Your task to perform on an android device: turn smart compose on in the gmail app Image 0: 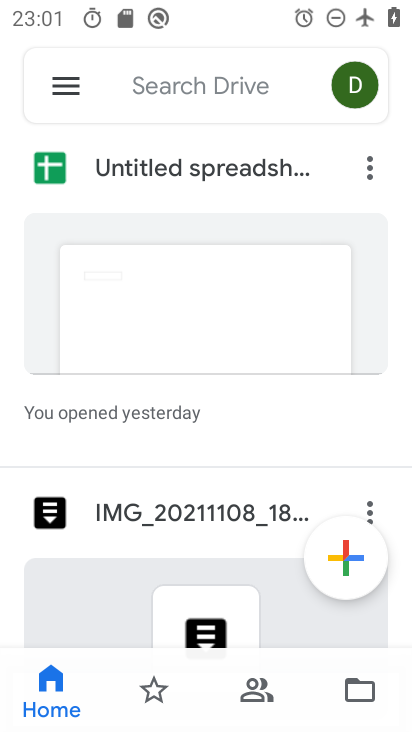
Step 0: press home button
Your task to perform on an android device: turn smart compose on in the gmail app Image 1: 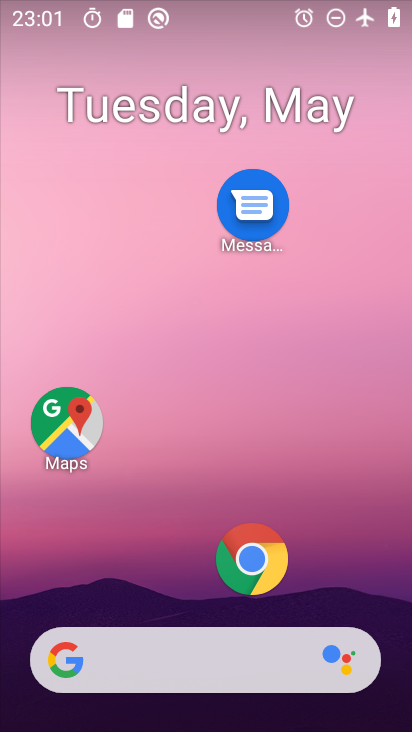
Step 1: drag from (182, 576) to (182, 132)
Your task to perform on an android device: turn smart compose on in the gmail app Image 2: 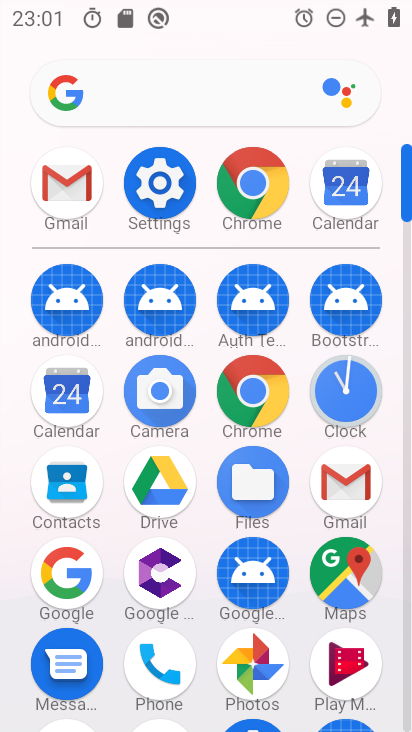
Step 2: click (38, 221)
Your task to perform on an android device: turn smart compose on in the gmail app Image 3: 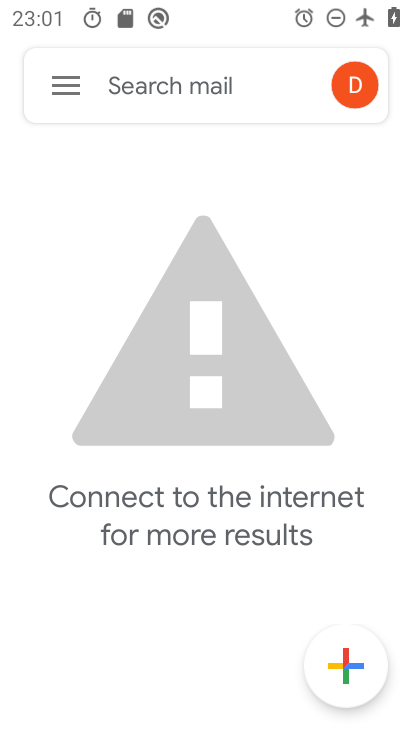
Step 3: click (63, 87)
Your task to perform on an android device: turn smart compose on in the gmail app Image 4: 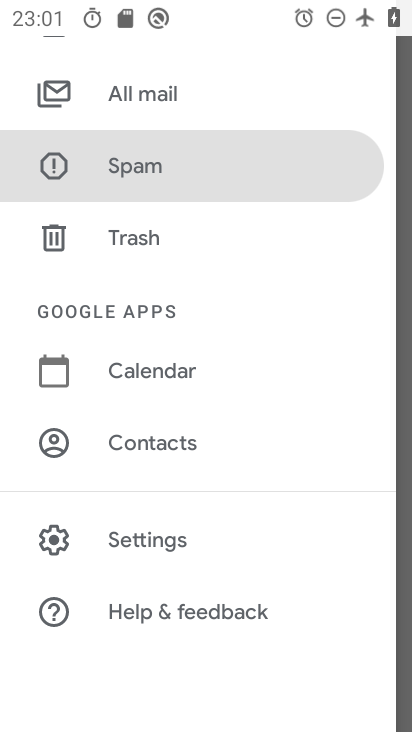
Step 4: click (160, 531)
Your task to perform on an android device: turn smart compose on in the gmail app Image 5: 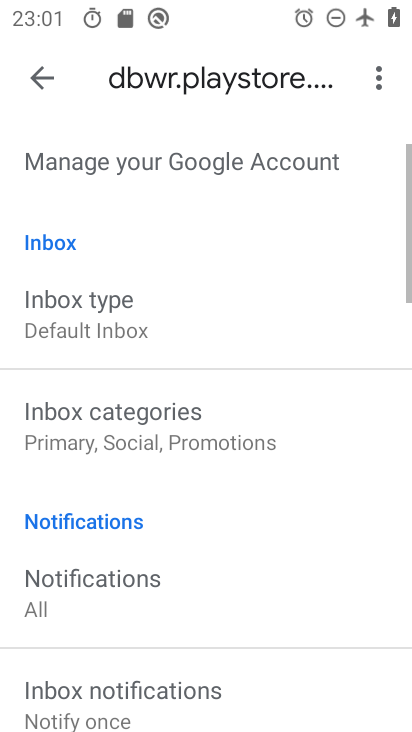
Step 5: task complete